Your task to perform on an android device: Open Google Maps Image 0: 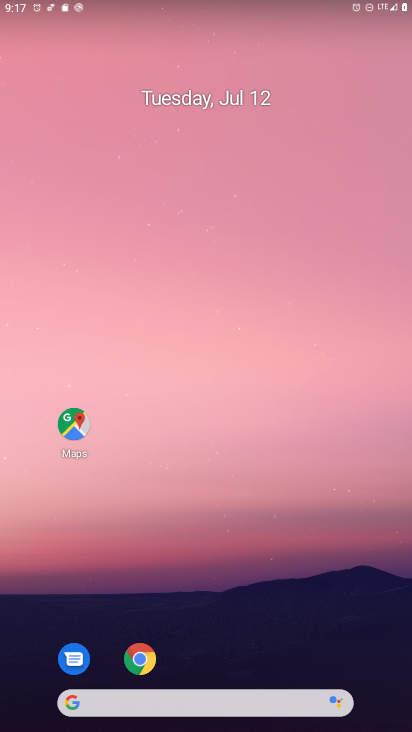
Step 0: click (76, 427)
Your task to perform on an android device: Open Google Maps Image 1: 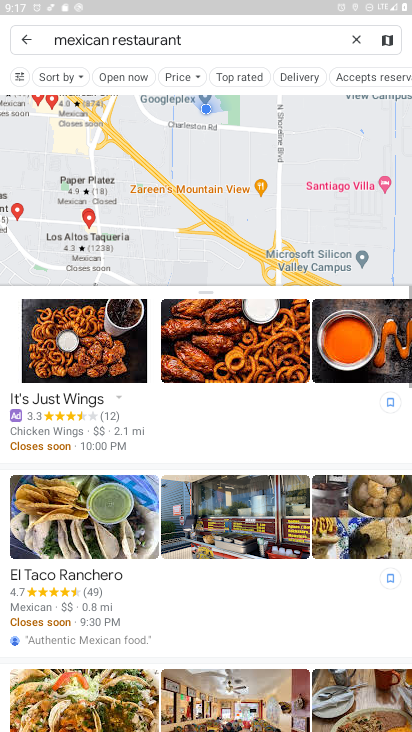
Step 1: click (356, 41)
Your task to perform on an android device: Open Google Maps Image 2: 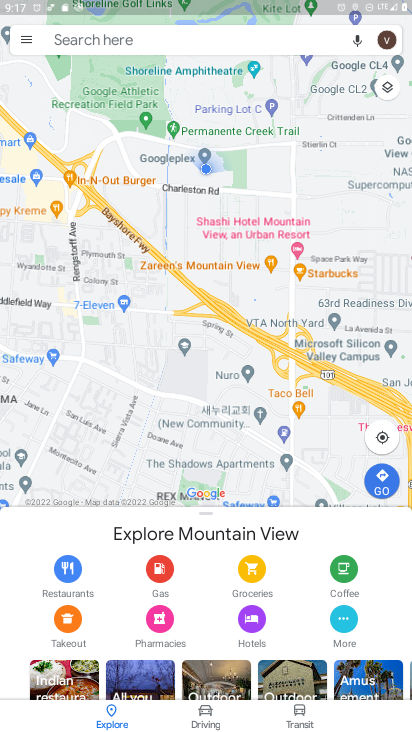
Step 2: task complete